Your task to perform on an android device: Go to internet settings Image 0: 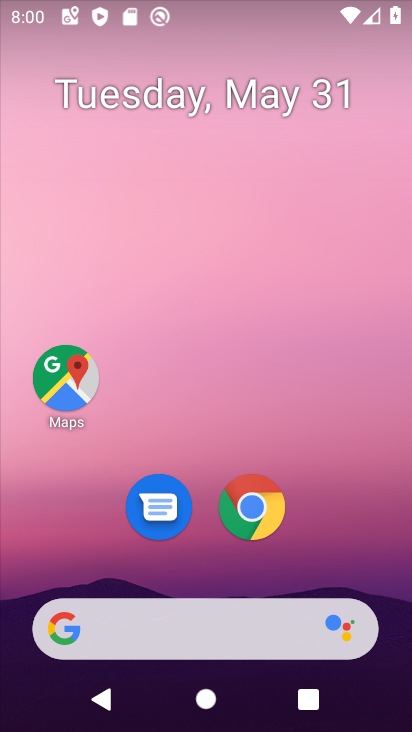
Step 0: drag from (6, 700) to (388, 165)
Your task to perform on an android device: Go to internet settings Image 1: 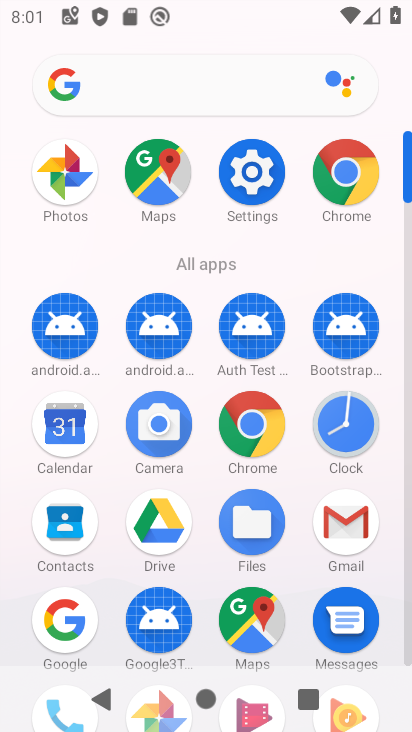
Step 1: click (250, 172)
Your task to perform on an android device: Go to internet settings Image 2: 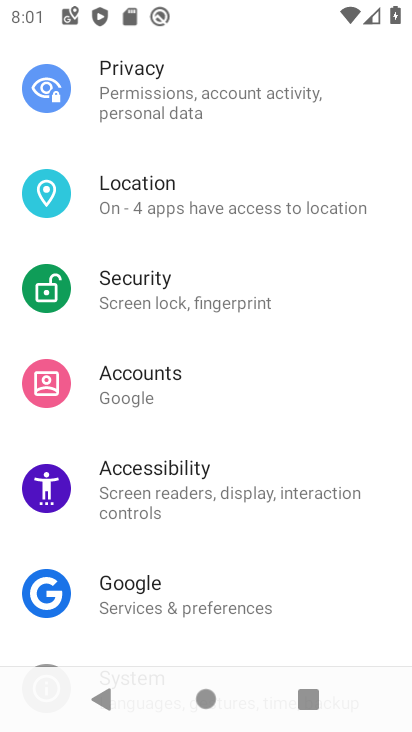
Step 2: drag from (289, 131) to (206, 565)
Your task to perform on an android device: Go to internet settings Image 3: 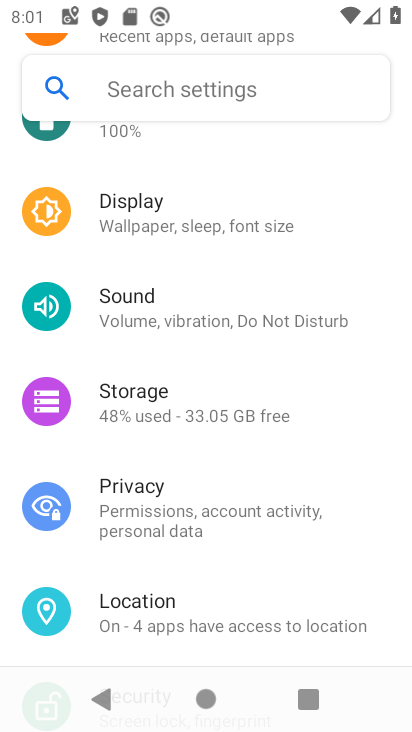
Step 3: drag from (238, 181) to (204, 586)
Your task to perform on an android device: Go to internet settings Image 4: 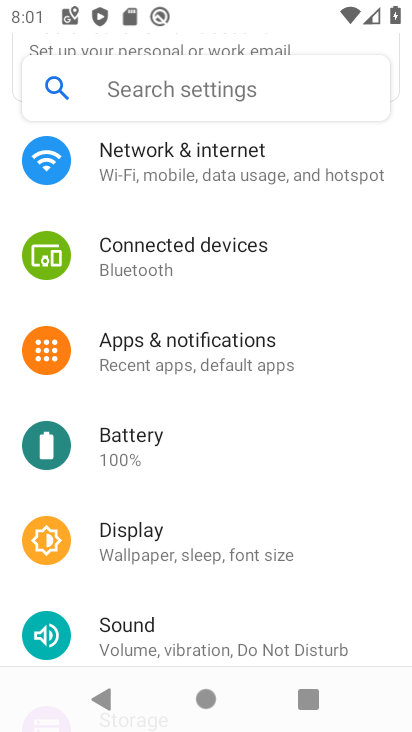
Step 4: drag from (204, 205) to (181, 523)
Your task to perform on an android device: Go to internet settings Image 5: 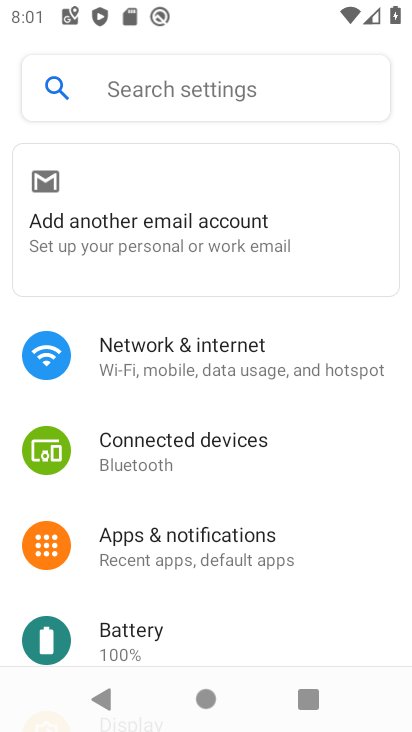
Step 5: click (183, 367)
Your task to perform on an android device: Go to internet settings Image 6: 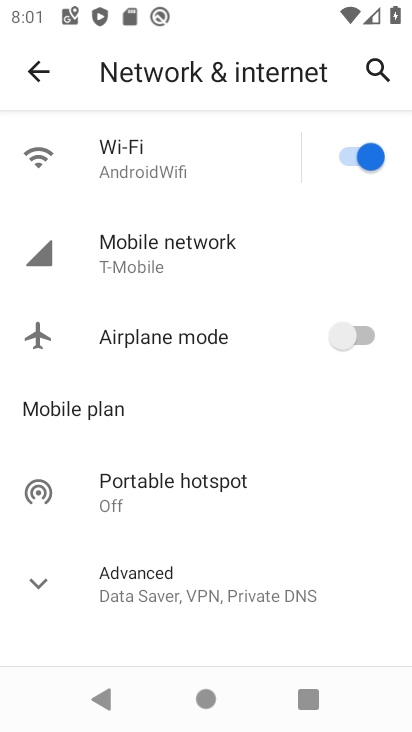
Step 6: click (201, 246)
Your task to perform on an android device: Go to internet settings Image 7: 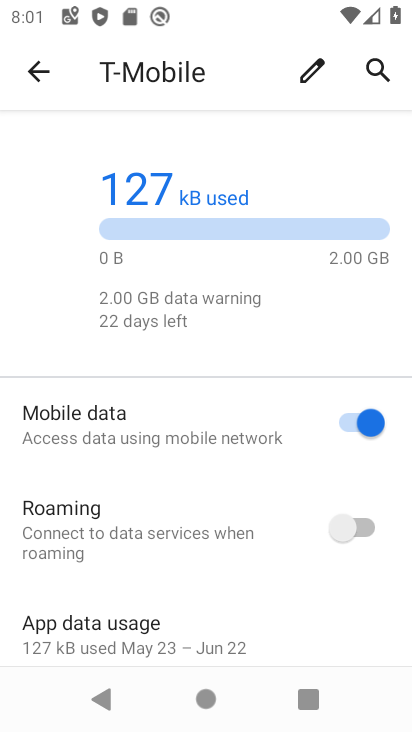
Step 7: task complete